Your task to perform on an android device: toggle airplane mode Image 0: 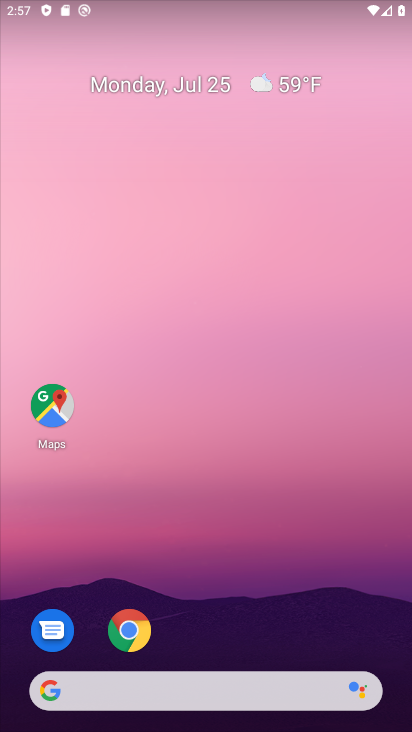
Step 0: drag from (257, 591) to (280, 1)
Your task to perform on an android device: toggle airplane mode Image 1: 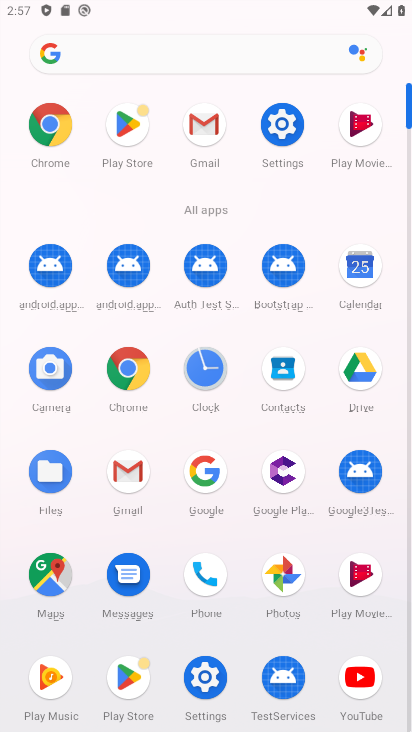
Step 1: click (277, 121)
Your task to perform on an android device: toggle airplane mode Image 2: 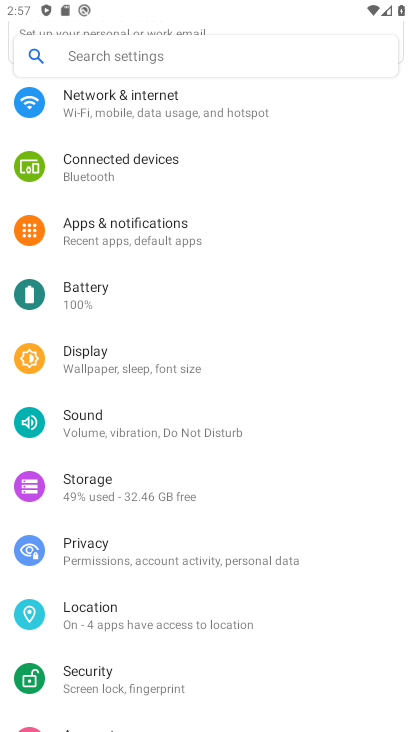
Step 2: click (114, 101)
Your task to perform on an android device: toggle airplane mode Image 3: 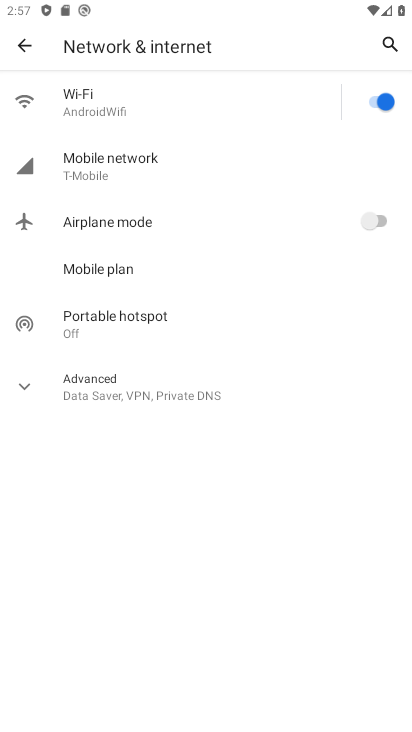
Step 3: click (365, 213)
Your task to perform on an android device: toggle airplane mode Image 4: 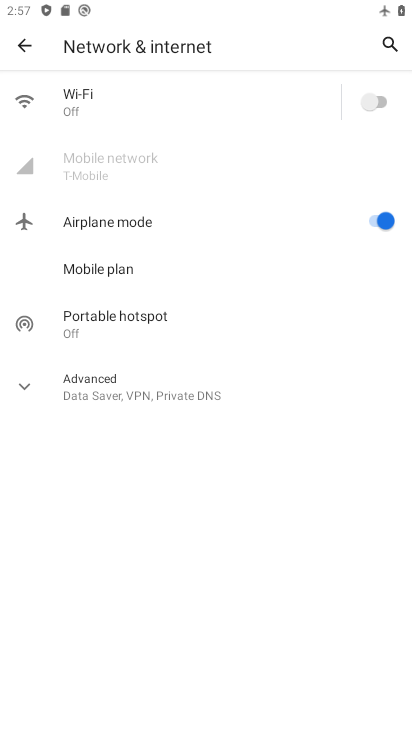
Step 4: task complete